Your task to perform on an android device: find which apps use the phone's location Image 0: 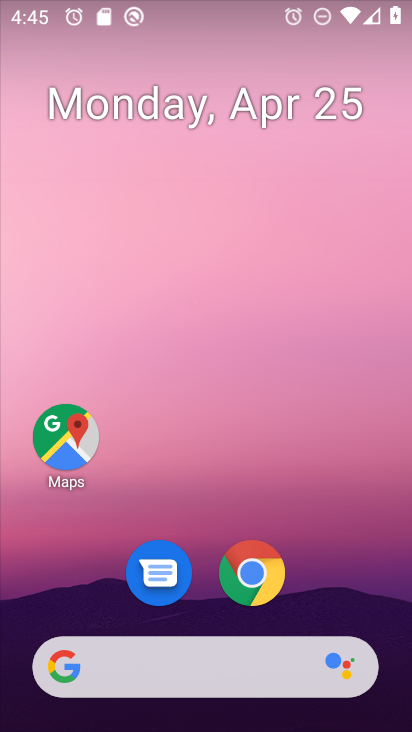
Step 0: drag from (379, 614) to (393, 40)
Your task to perform on an android device: find which apps use the phone's location Image 1: 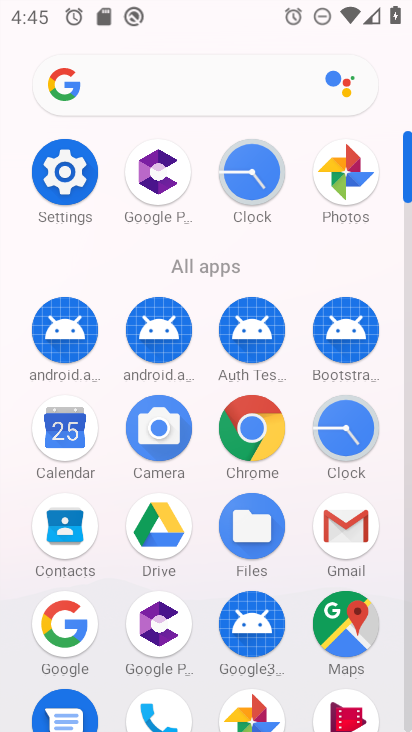
Step 1: click (54, 177)
Your task to perform on an android device: find which apps use the phone's location Image 2: 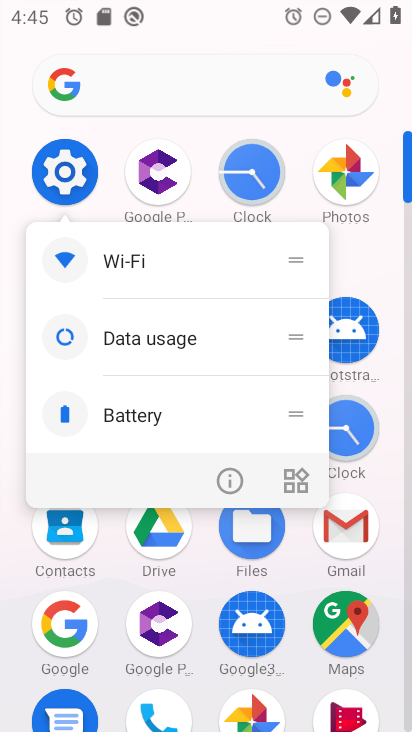
Step 2: click (63, 172)
Your task to perform on an android device: find which apps use the phone's location Image 3: 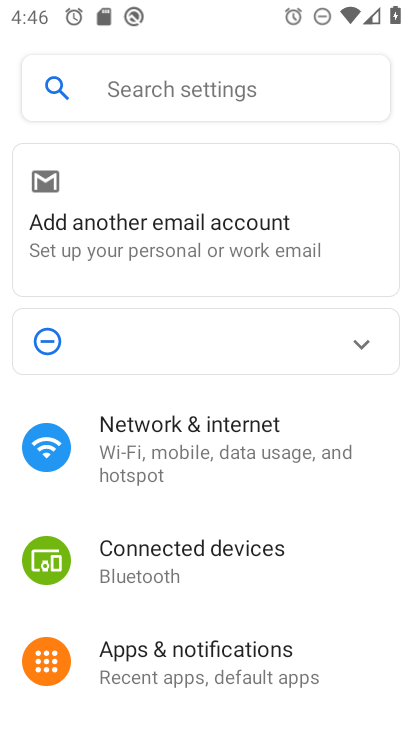
Step 3: drag from (329, 603) to (338, 122)
Your task to perform on an android device: find which apps use the phone's location Image 4: 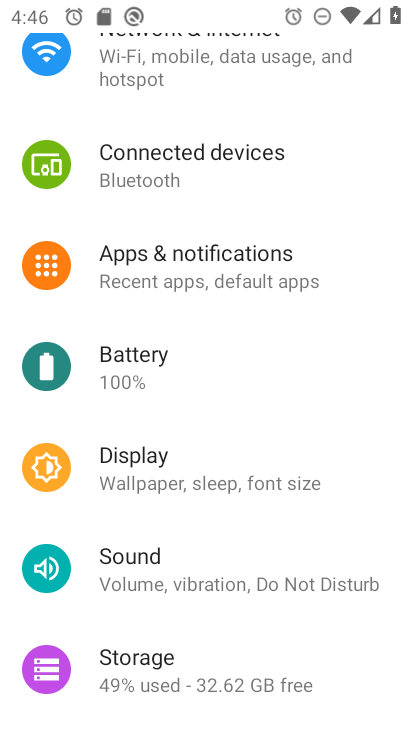
Step 4: drag from (241, 418) to (239, 156)
Your task to perform on an android device: find which apps use the phone's location Image 5: 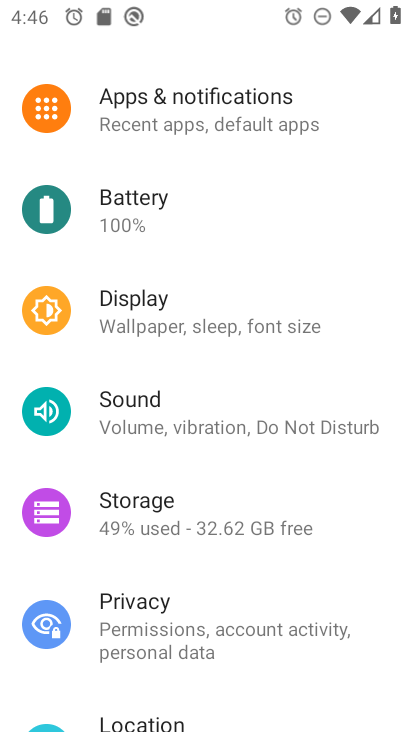
Step 5: drag from (327, 592) to (282, 229)
Your task to perform on an android device: find which apps use the phone's location Image 6: 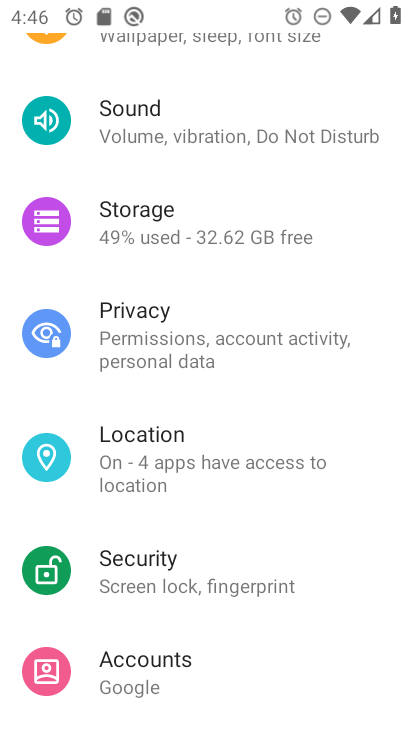
Step 6: click (111, 463)
Your task to perform on an android device: find which apps use the phone's location Image 7: 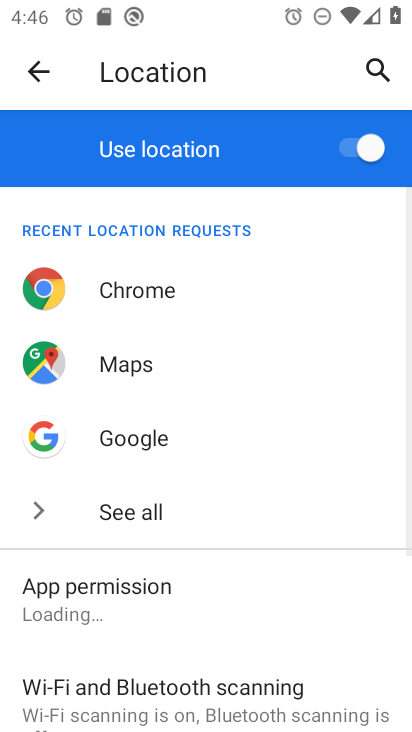
Step 7: drag from (239, 597) to (249, 347)
Your task to perform on an android device: find which apps use the phone's location Image 8: 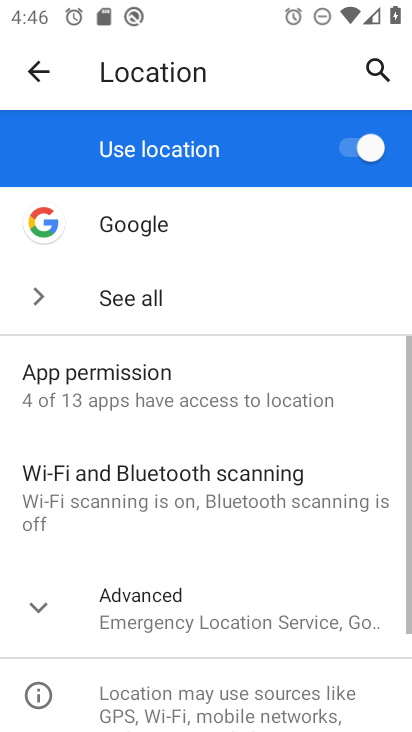
Step 8: click (115, 380)
Your task to perform on an android device: find which apps use the phone's location Image 9: 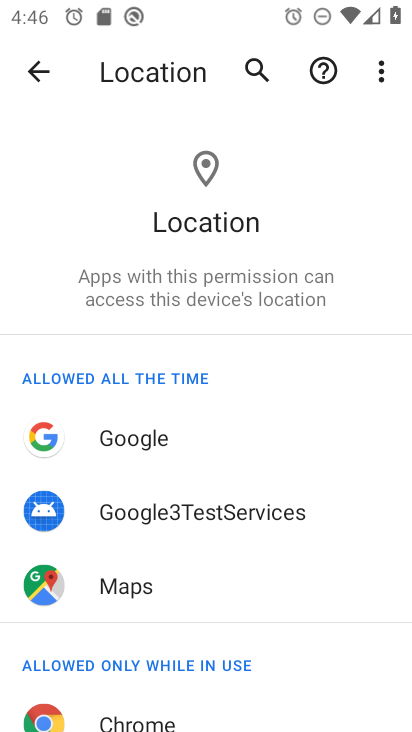
Step 9: task complete